Your task to perform on an android device: toggle priority inbox in the gmail app Image 0: 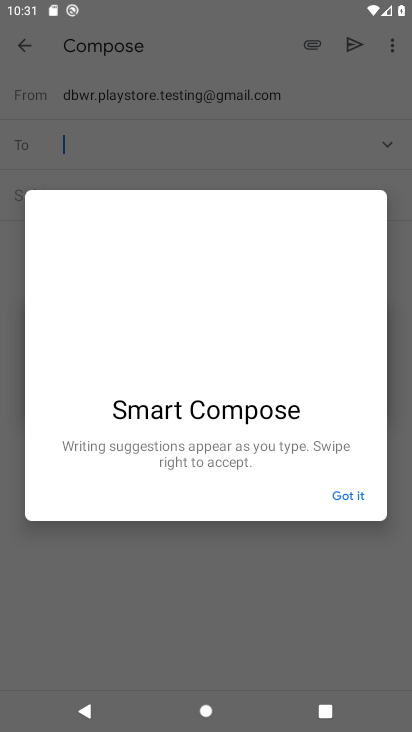
Step 0: press home button
Your task to perform on an android device: toggle priority inbox in the gmail app Image 1: 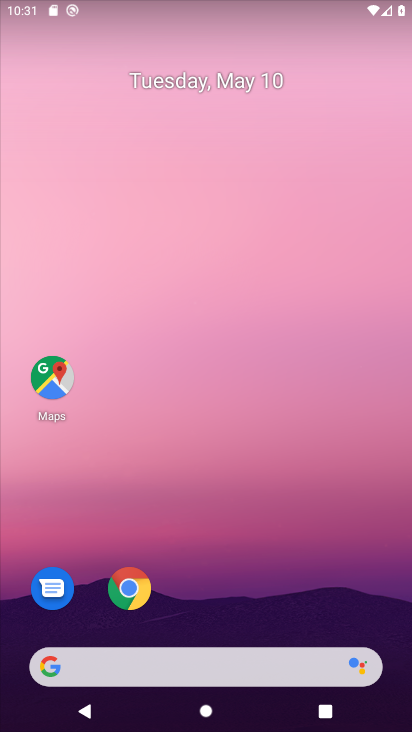
Step 1: drag from (210, 613) to (226, 273)
Your task to perform on an android device: toggle priority inbox in the gmail app Image 2: 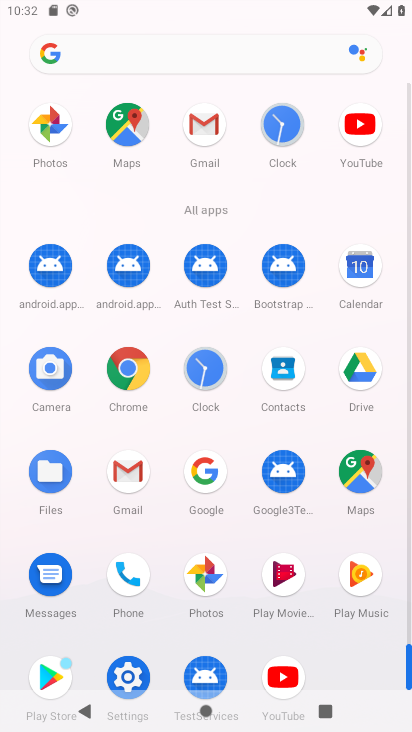
Step 2: click (200, 136)
Your task to perform on an android device: toggle priority inbox in the gmail app Image 3: 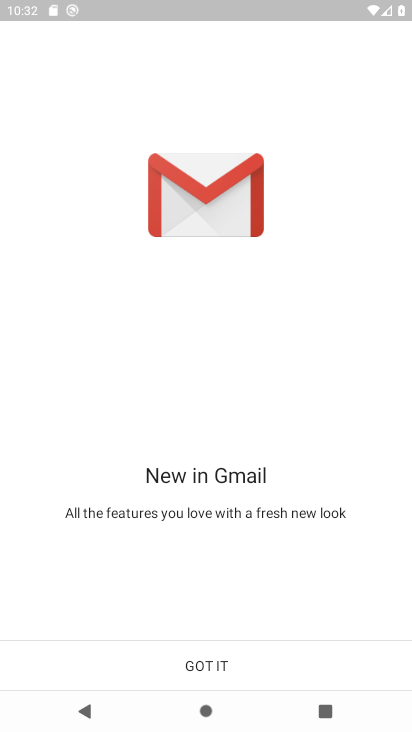
Step 3: click (220, 668)
Your task to perform on an android device: toggle priority inbox in the gmail app Image 4: 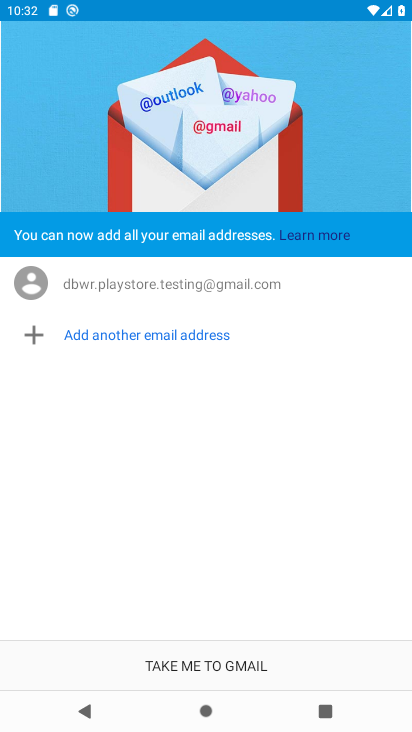
Step 4: click (225, 667)
Your task to perform on an android device: toggle priority inbox in the gmail app Image 5: 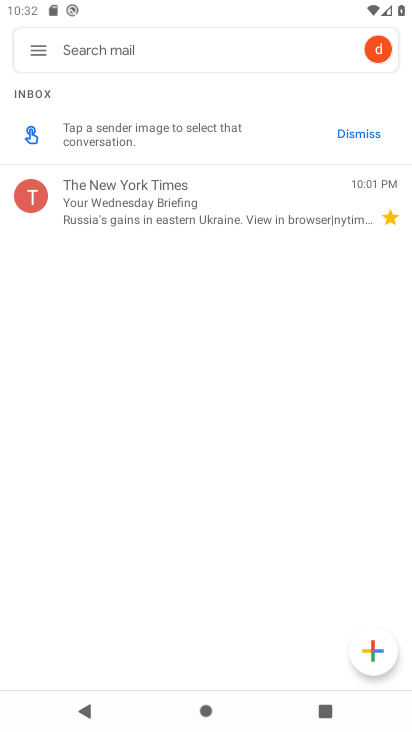
Step 5: click (37, 48)
Your task to perform on an android device: toggle priority inbox in the gmail app Image 6: 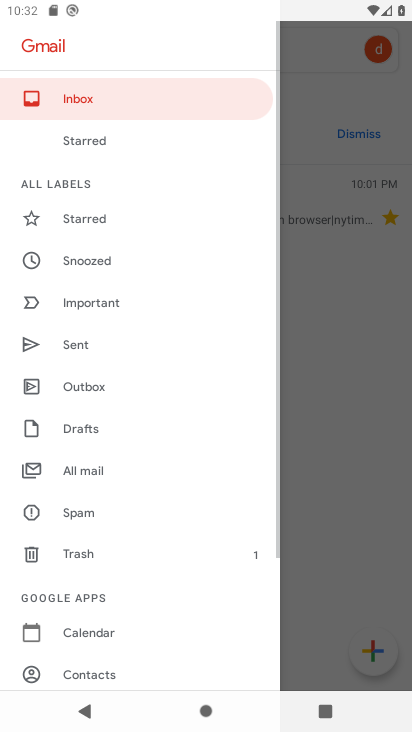
Step 6: drag from (143, 551) to (162, 337)
Your task to perform on an android device: toggle priority inbox in the gmail app Image 7: 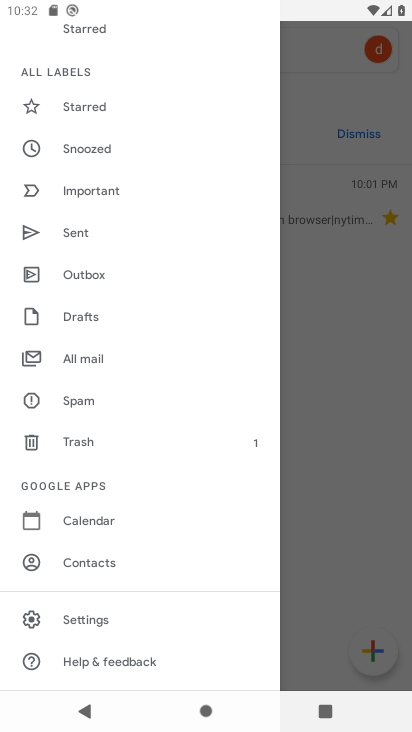
Step 7: click (96, 610)
Your task to perform on an android device: toggle priority inbox in the gmail app Image 8: 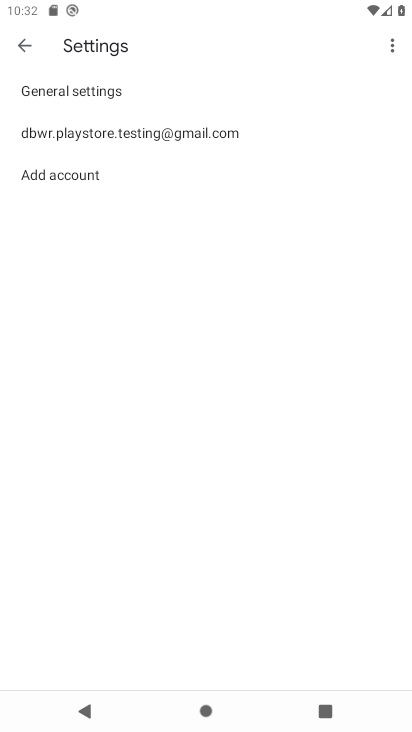
Step 8: click (169, 132)
Your task to perform on an android device: toggle priority inbox in the gmail app Image 9: 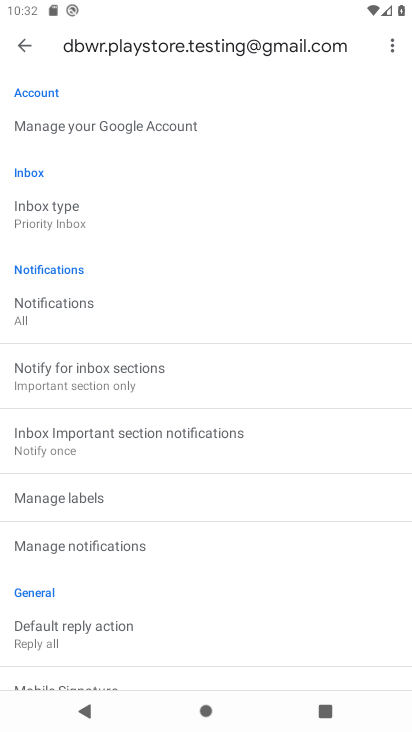
Step 9: click (105, 219)
Your task to perform on an android device: toggle priority inbox in the gmail app Image 10: 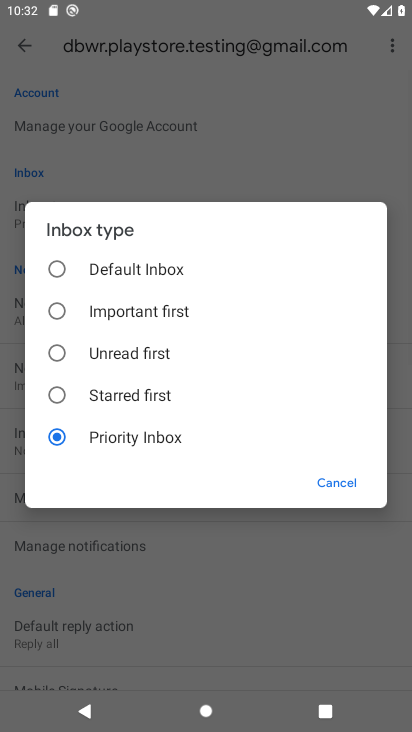
Step 10: click (92, 268)
Your task to perform on an android device: toggle priority inbox in the gmail app Image 11: 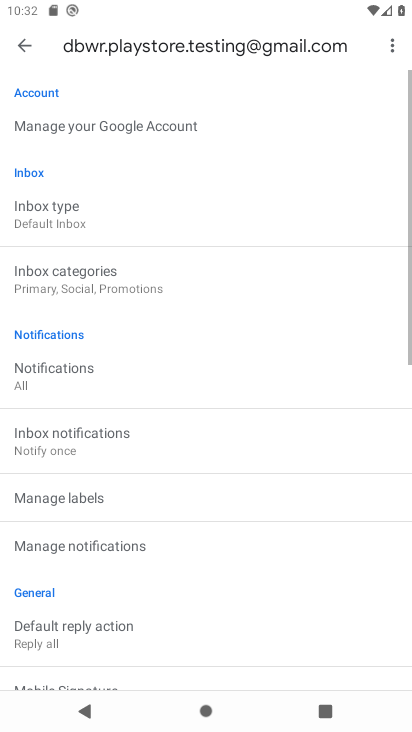
Step 11: task complete